Your task to perform on an android device: Open location settings Image 0: 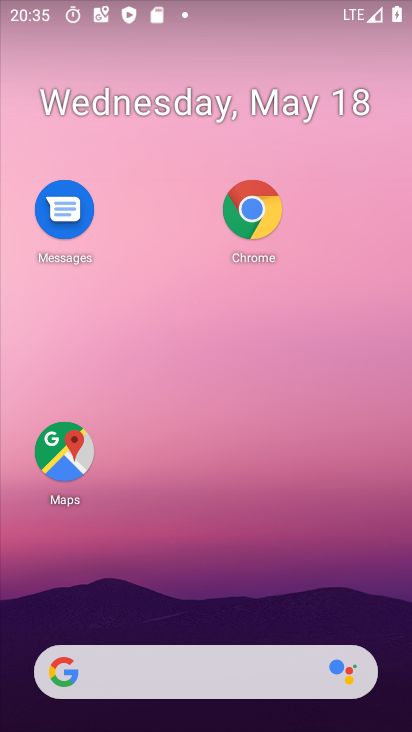
Step 0: drag from (197, 605) to (252, 1)
Your task to perform on an android device: Open location settings Image 1: 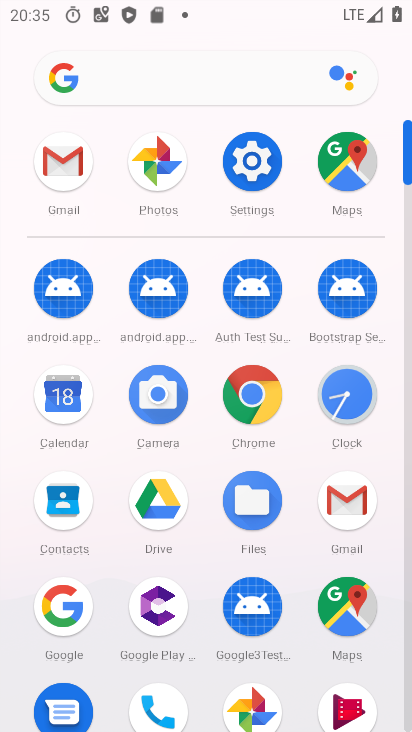
Step 1: click (247, 170)
Your task to perform on an android device: Open location settings Image 2: 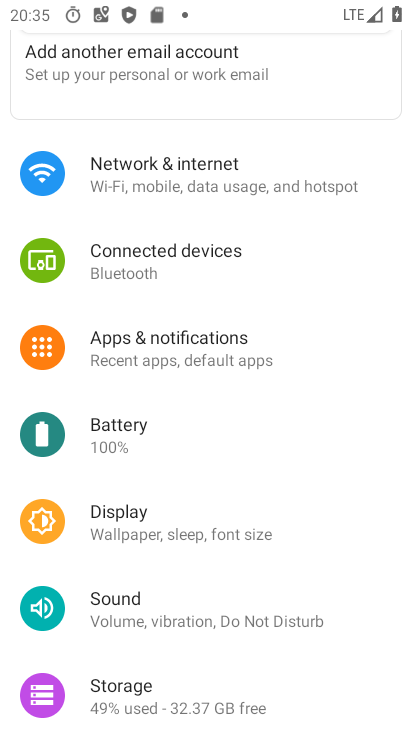
Step 2: drag from (114, 660) to (205, 129)
Your task to perform on an android device: Open location settings Image 3: 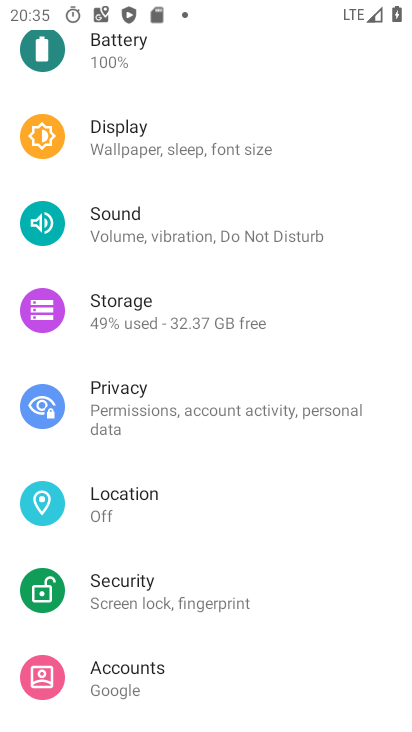
Step 3: click (67, 509)
Your task to perform on an android device: Open location settings Image 4: 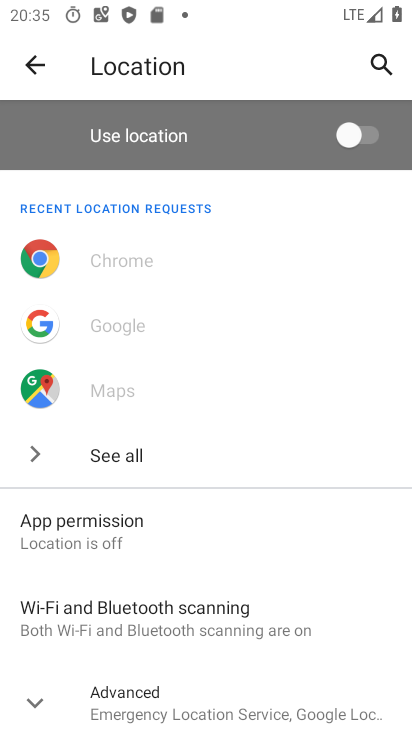
Step 4: task complete